Your task to perform on an android device: Open the stopwatch Image 0: 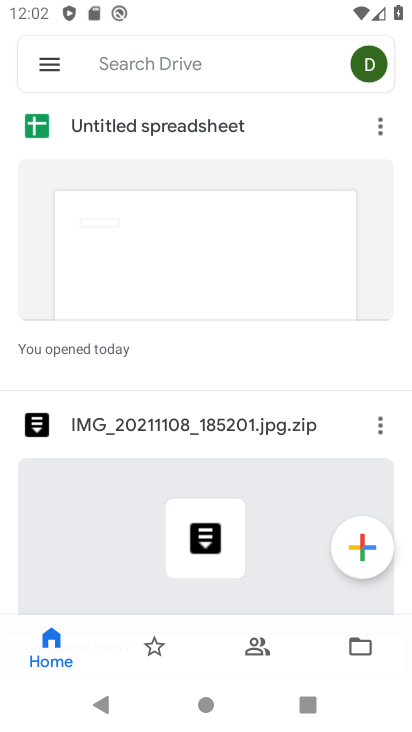
Step 0: press home button
Your task to perform on an android device: Open the stopwatch Image 1: 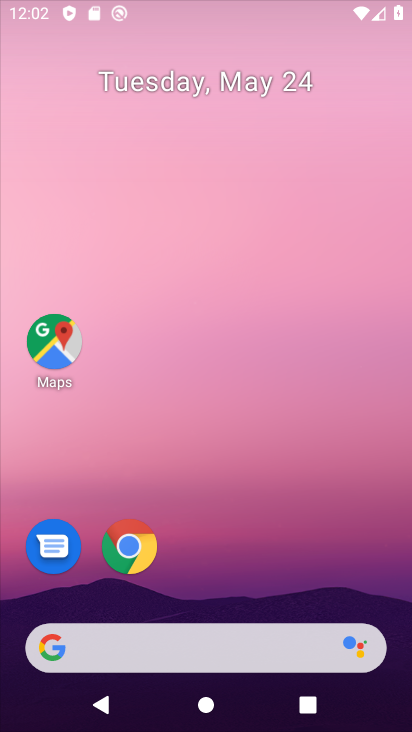
Step 1: drag from (315, 669) to (374, 161)
Your task to perform on an android device: Open the stopwatch Image 2: 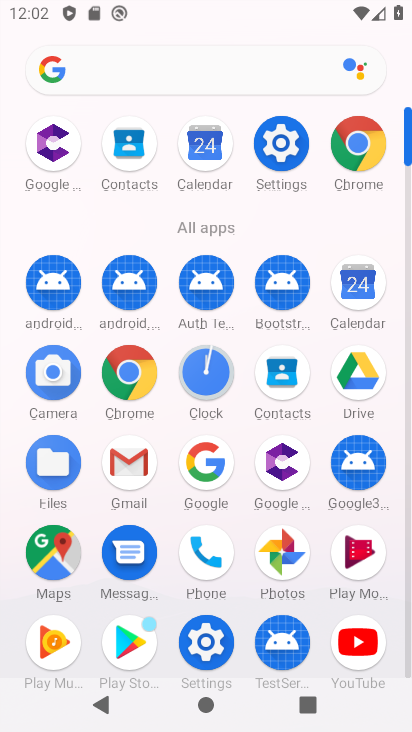
Step 2: click (197, 376)
Your task to perform on an android device: Open the stopwatch Image 3: 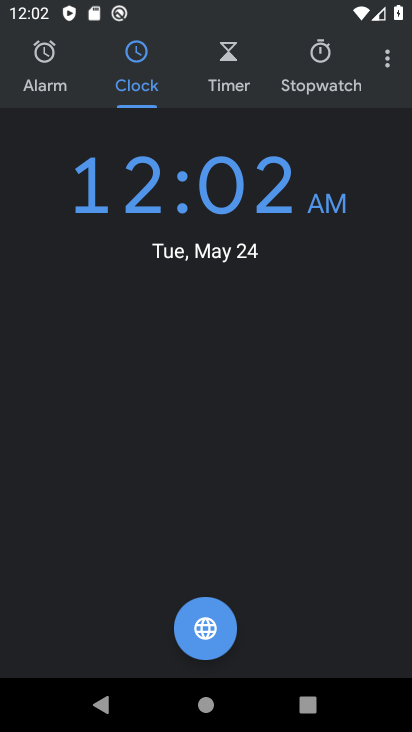
Step 3: click (331, 68)
Your task to perform on an android device: Open the stopwatch Image 4: 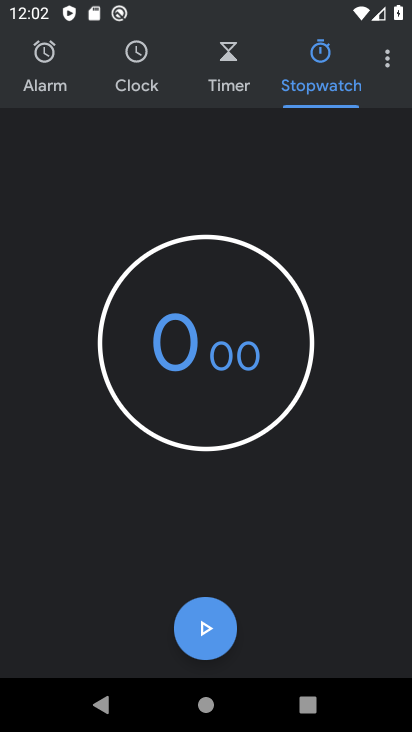
Step 4: task complete